Your task to perform on an android device: Go to Google maps Image 0: 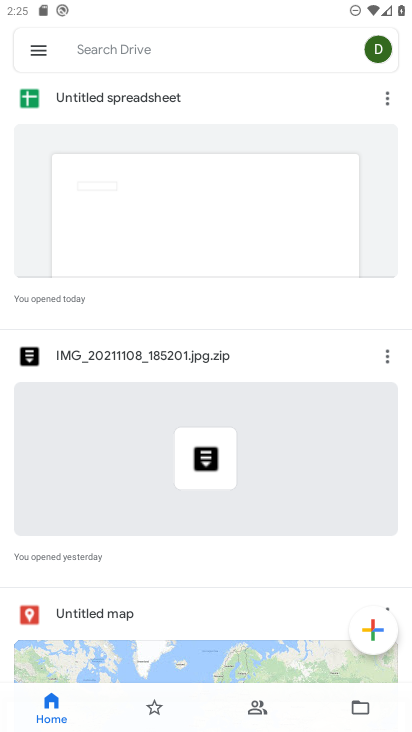
Step 0: press home button
Your task to perform on an android device: Go to Google maps Image 1: 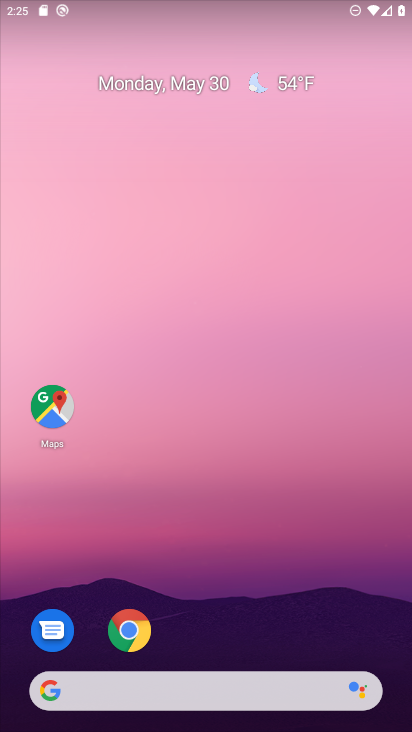
Step 1: click (47, 394)
Your task to perform on an android device: Go to Google maps Image 2: 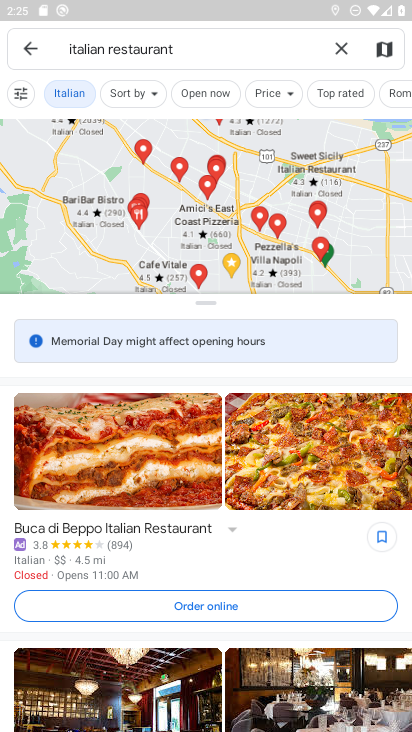
Step 2: task complete